Your task to perform on an android device: Go to notification settings Image 0: 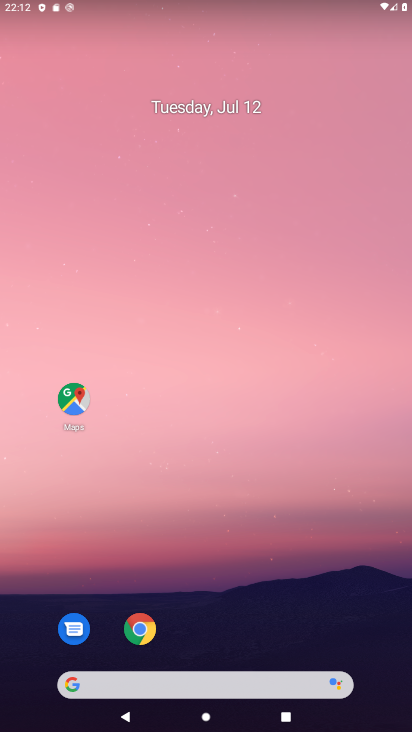
Step 0: drag from (298, 627) to (271, 26)
Your task to perform on an android device: Go to notification settings Image 1: 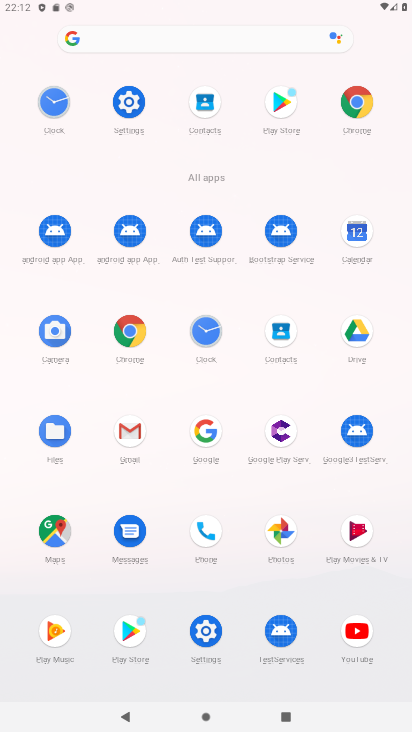
Step 1: click (215, 633)
Your task to perform on an android device: Go to notification settings Image 2: 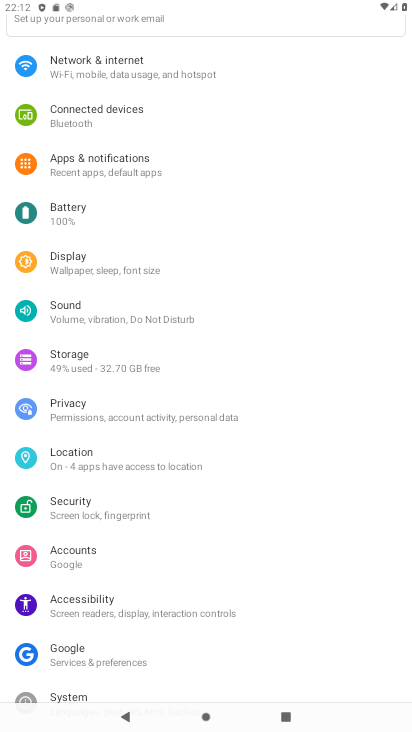
Step 2: click (101, 160)
Your task to perform on an android device: Go to notification settings Image 3: 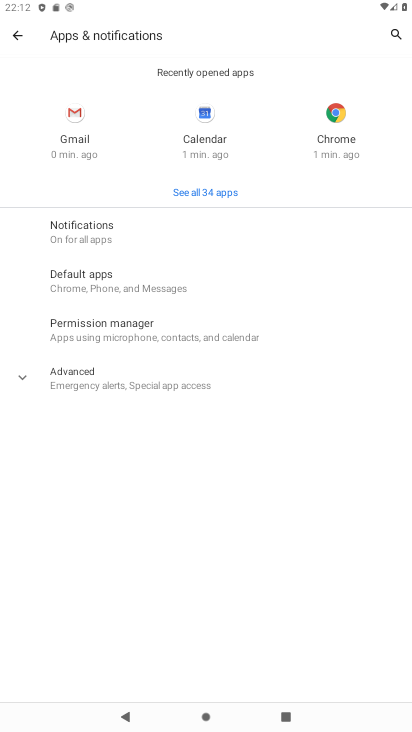
Step 3: click (105, 219)
Your task to perform on an android device: Go to notification settings Image 4: 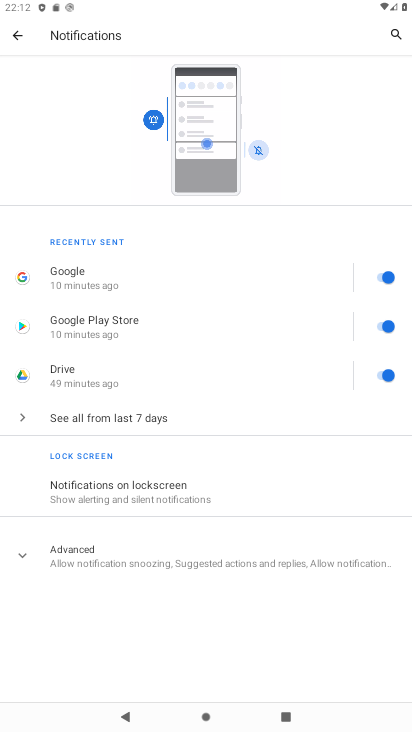
Step 4: task complete